Your task to perform on an android device: see sites visited before in the chrome app Image 0: 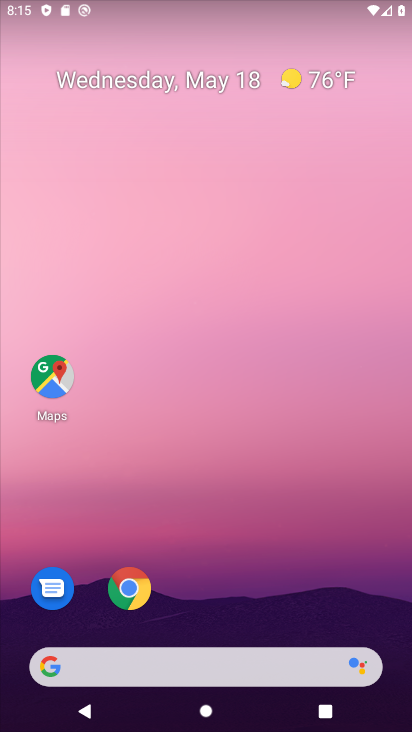
Step 0: click (143, 593)
Your task to perform on an android device: see sites visited before in the chrome app Image 1: 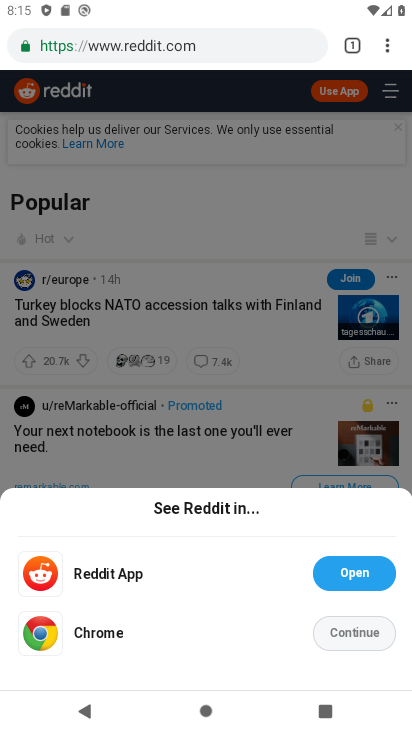
Step 1: click (283, 410)
Your task to perform on an android device: see sites visited before in the chrome app Image 2: 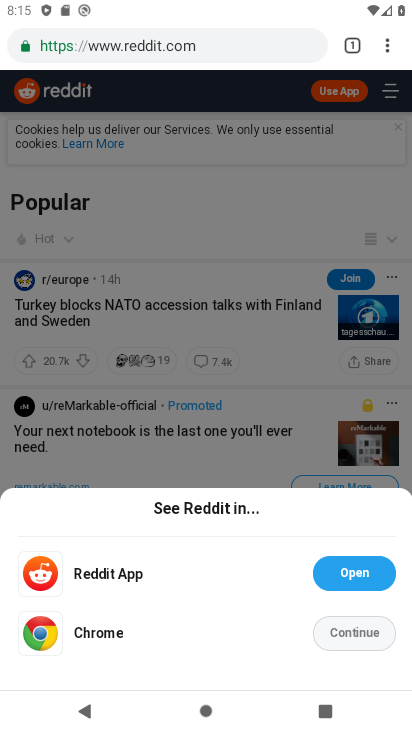
Step 2: click (333, 642)
Your task to perform on an android device: see sites visited before in the chrome app Image 3: 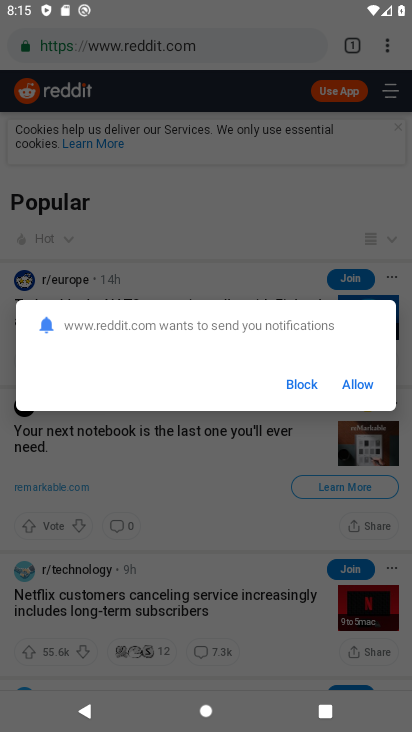
Step 3: click (346, 373)
Your task to perform on an android device: see sites visited before in the chrome app Image 4: 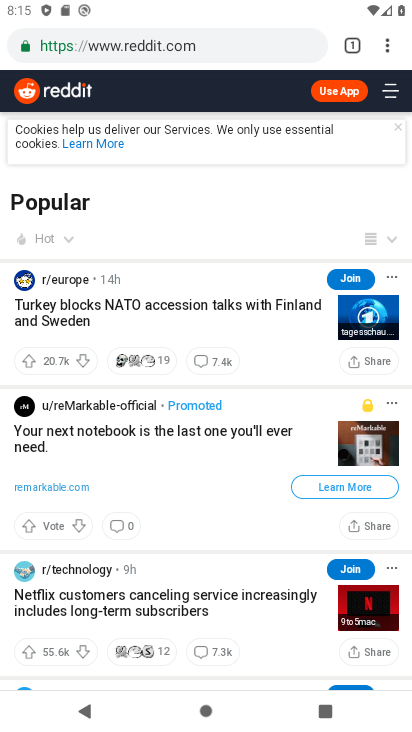
Step 4: click (387, 45)
Your task to perform on an android device: see sites visited before in the chrome app Image 5: 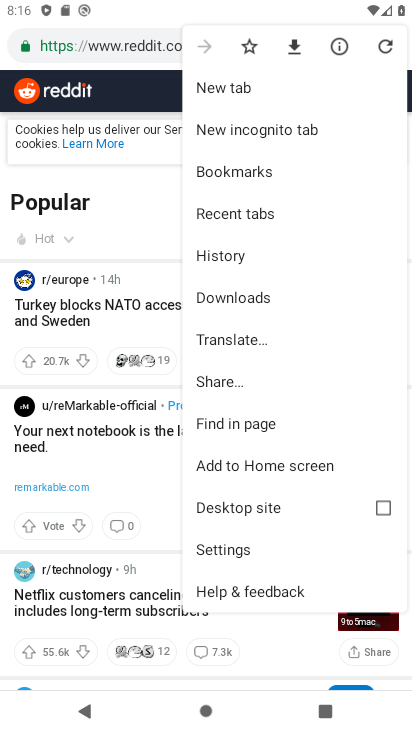
Step 5: click (281, 213)
Your task to perform on an android device: see sites visited before in the chrome app Image 6: 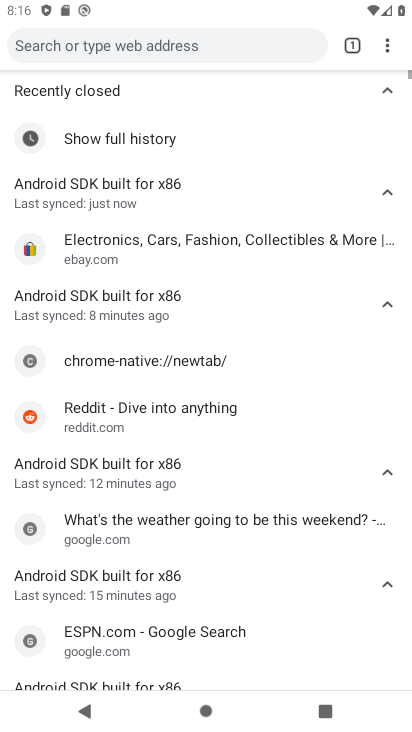
Step 6: task complete